Your task to perform on an android device: Open Yahoo.com Image 0: 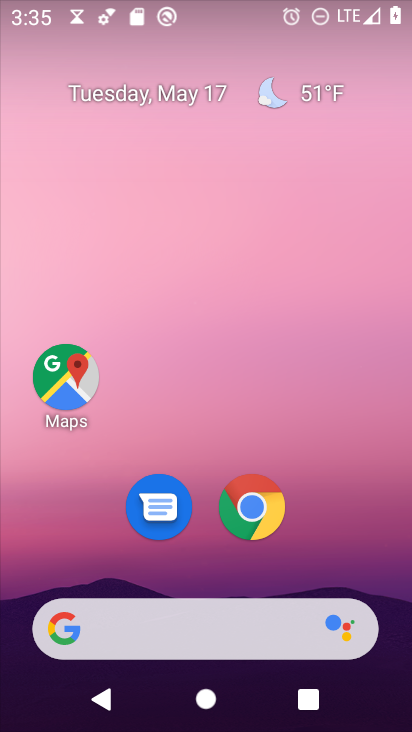
Step 0: click (262, 501)
Your task to perform on an android device: Open Yahoo.com Image 1: 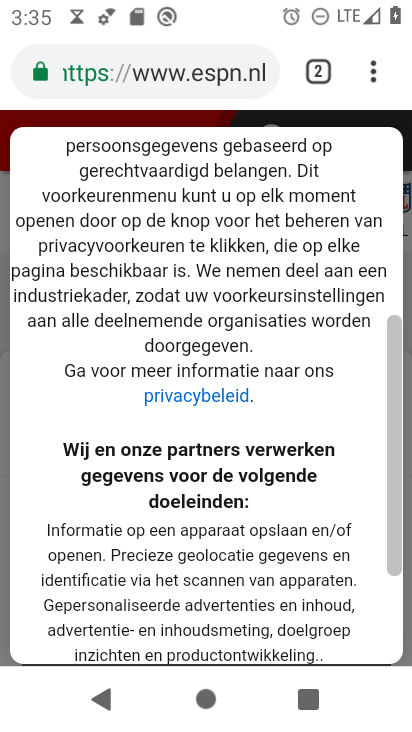
Step 1: click (211, 65)
Your task to perform on an android device: Open Yahoo.com Image 2: 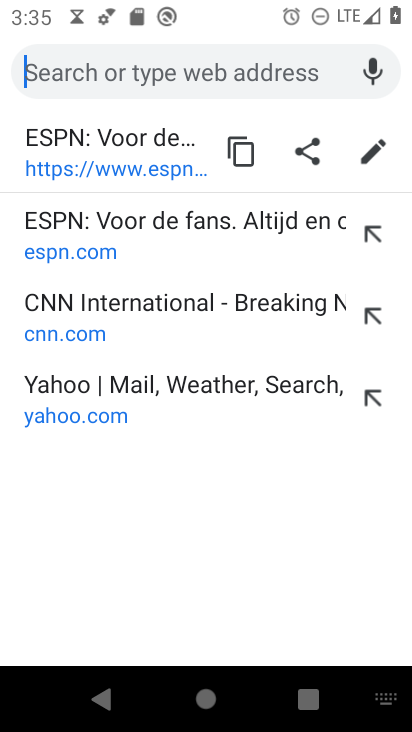
Step 2: type "yahoo.com"
Your task to perform on an android device: Open Yahoo.com Image 3: 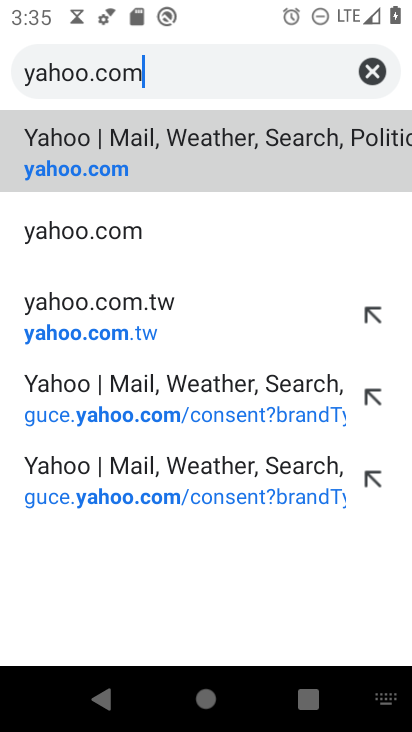
Step 3: click (93, 159)
Your task to perform on an android device: Open Yahoo.com Image 4: 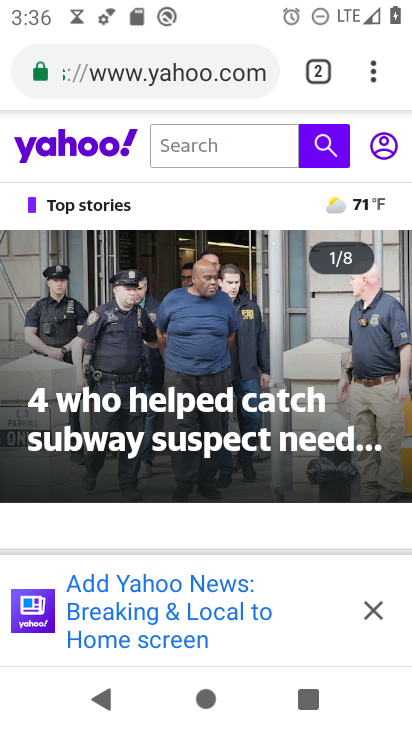
Step 4: task complete